Your task to perform on an android device: Show me popular games on the Play Store Image 0: 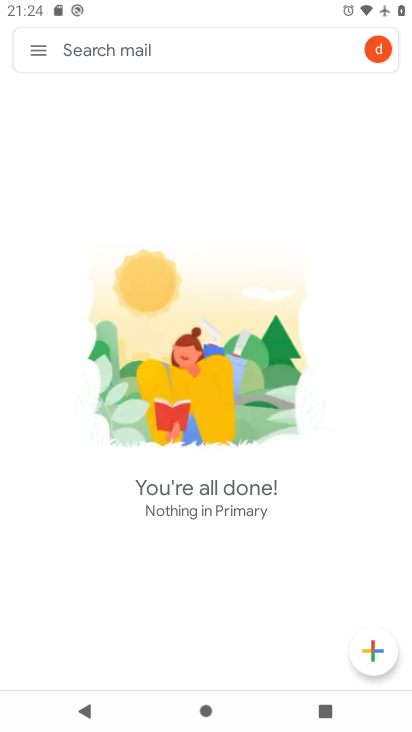
Step 0: press home button
Your task to perform on an android device: Show me popular games on the Play Store Image 1: 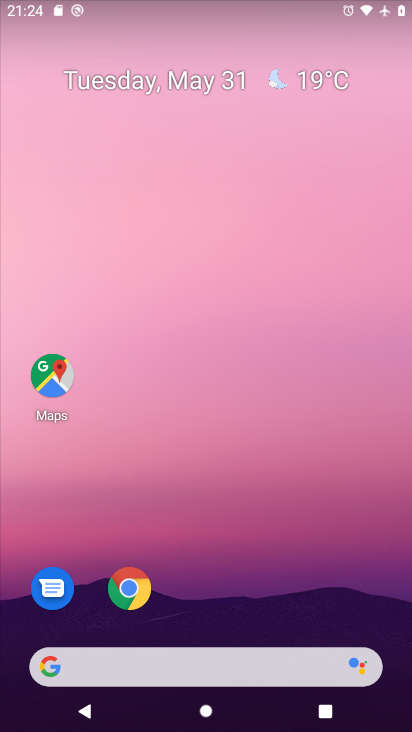
Step 1: drag from (159, 658) to (324, 214)
Your task to perform on an android device: Show me popular games on the Play Store Image 2: 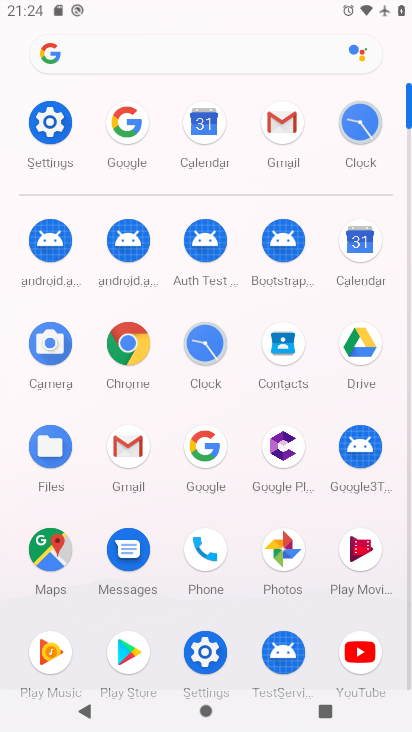
Step 2: click (124, 655)
Your task to perform on an android device: Show me popular games on the Play Store Image 3: 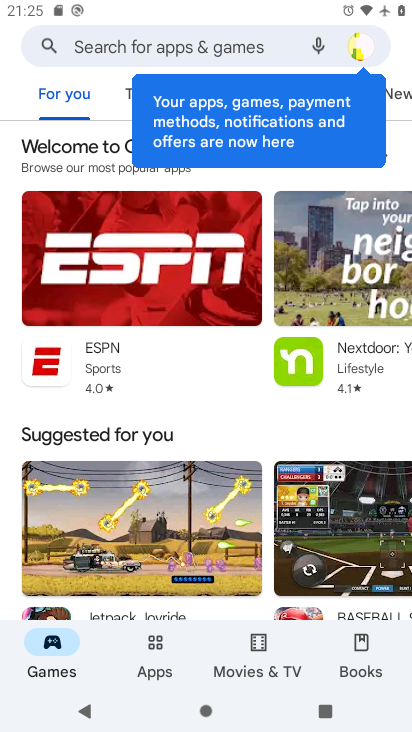
Step 3: drag from (173, 607) to (308, 139)
Your task to perform on an android device: Show me popular games on the Play Store Image 4: 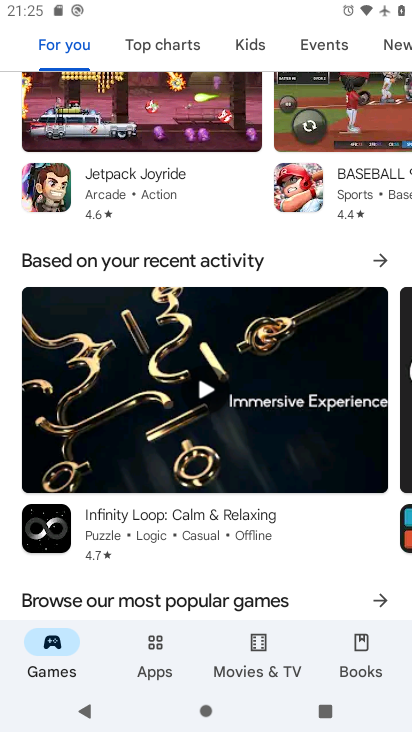
Step 4: drag from (222, 560) to (263, 385)
Your task to perform on an android device: Show me popular games on the Play Store Image 5: 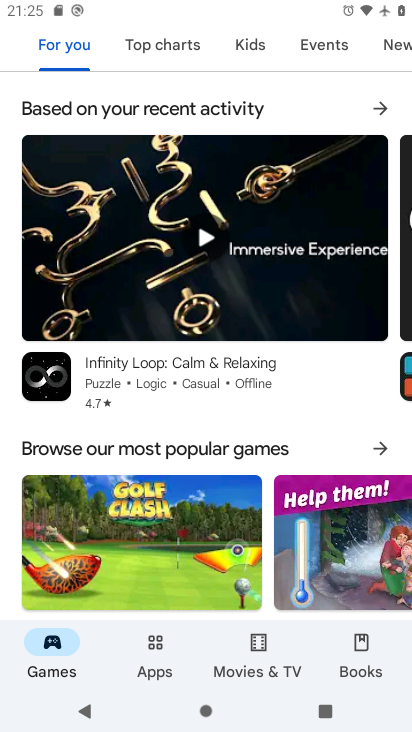
Step 5: click (238, 448)
Your task to perform on an android device: Show me popular games on the Play Store Image 6: 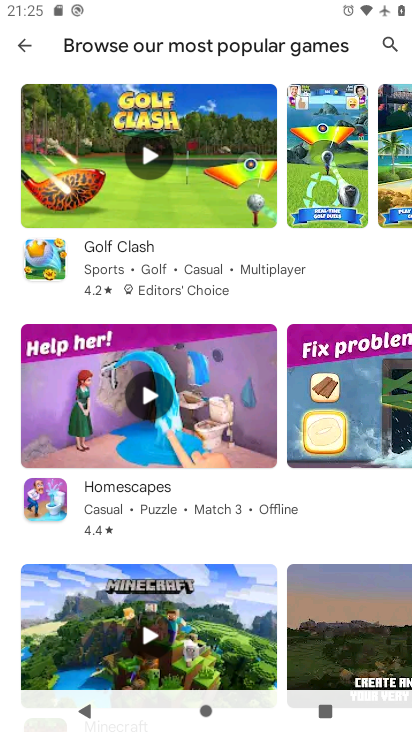
Step 6: task complete